Your task to perform on an android device: What's on my calendar today? Image 0: 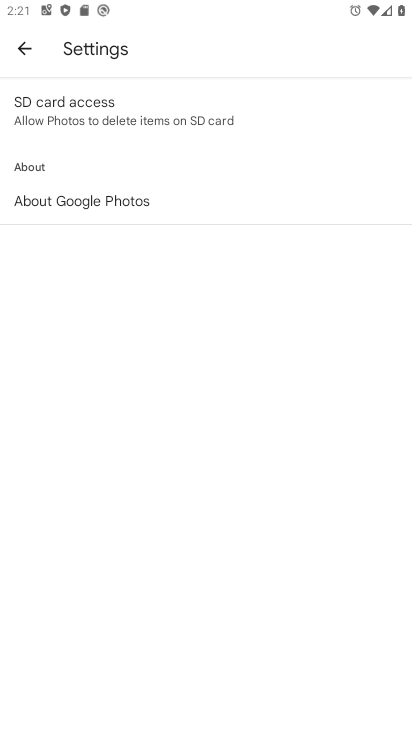
Step 0: press home button
Your task to perform on an android device: What's on my calendar today? Image 1: 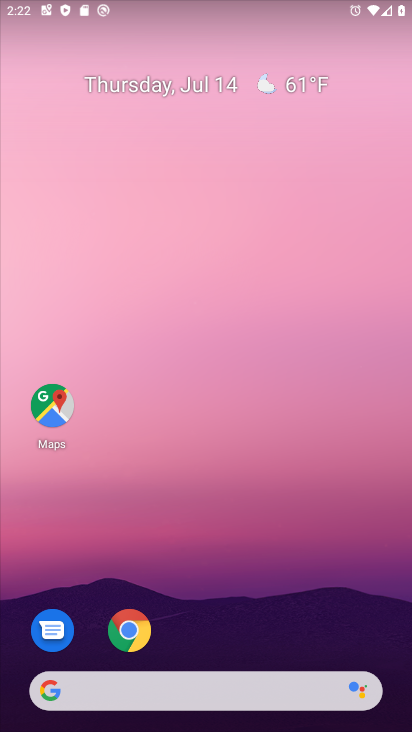
Step 1: drag from (142, 681) to (208, 261)
Your task to perform on an android device: What's on my calendar today? Image 2: 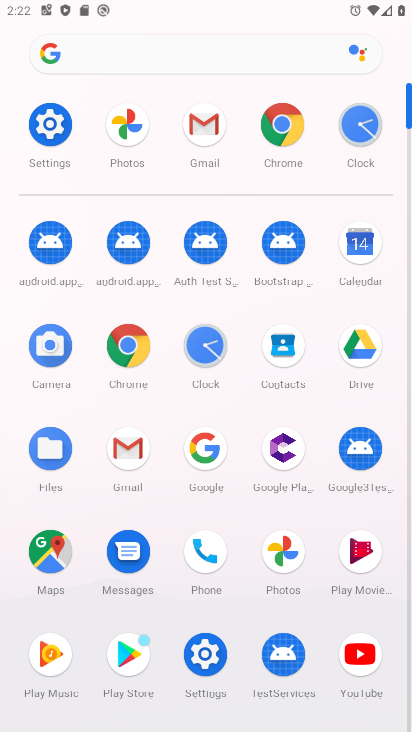
Step 2: click (353, 250)
Your task to perform on an android device: What's on my calendar today? Image 3: 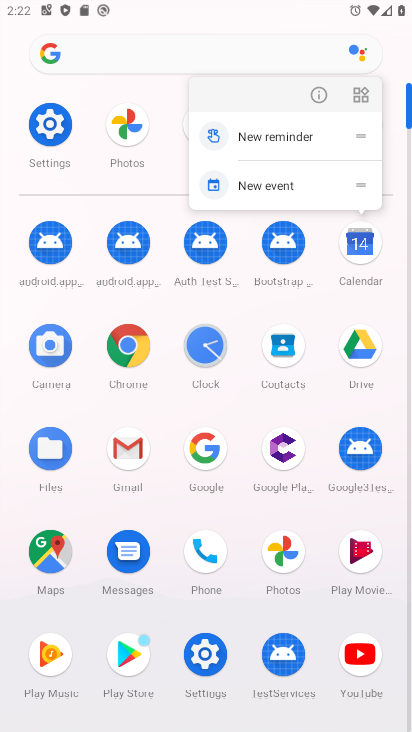
Step 3: click (362, 250)
Your task to perform on an android device: What's on my calendar today? Image 4: 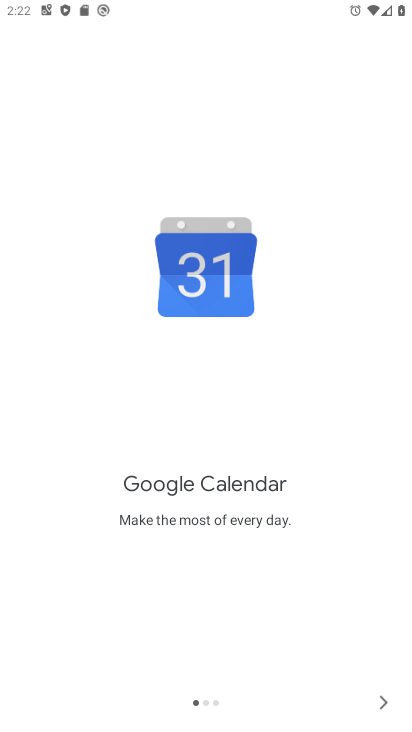
Step 4: click (386, 710)
Your task to perform on an android device: What's on my calendar today? Image 5: 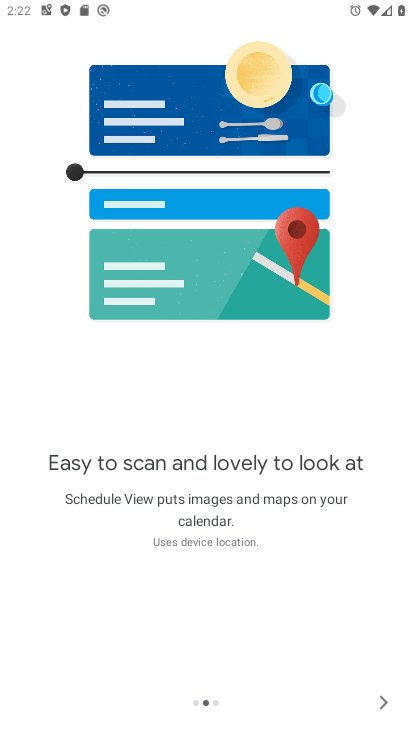
Step 5: click (386, 701)
Your task to perform on an android device: What's on my calendar today? Image 6: 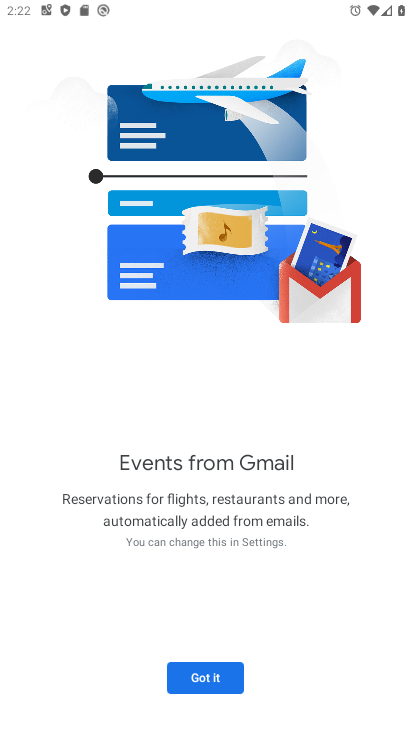
Step 6: click (214, 667)
Your task to perform on an android device: What's on my calendar today? Image 7: 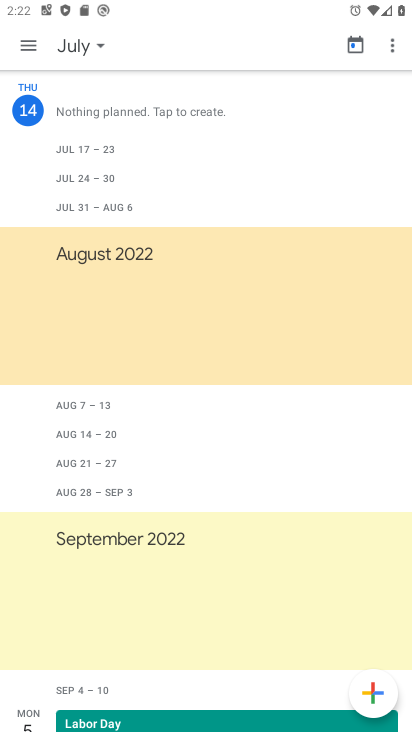
Step 7: click (30, 48)
Your task to perform on an android device: What's on my calendar today? Image 8: 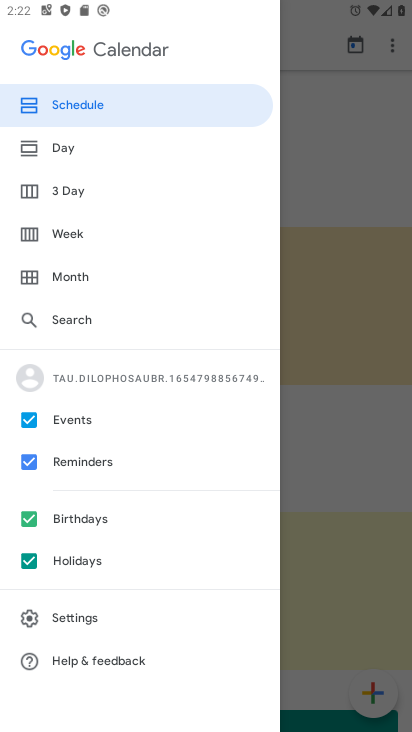
Step 8: click (61, 151)
Your task to perform on an android device: What's on my calendar today? Image 9: 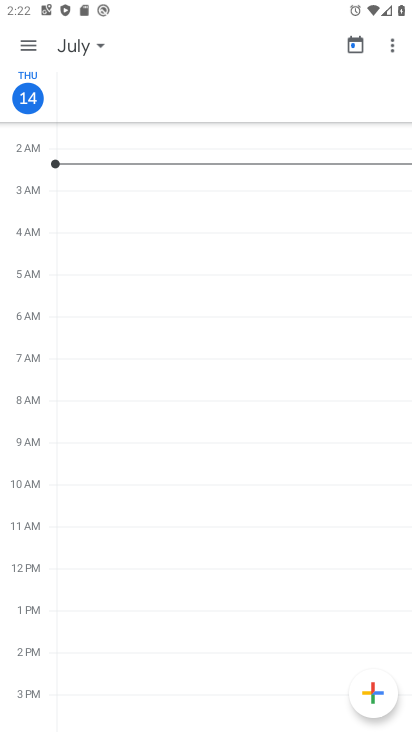
Step 9: click (30, 44)
Your task to perform on an android device: What's on my calendar today? Image 10: 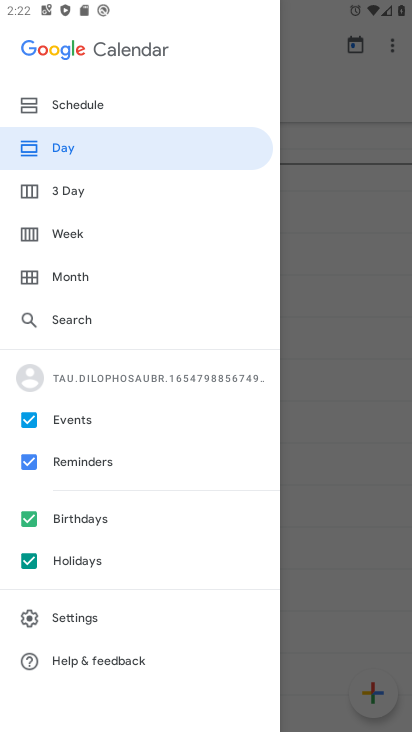
Step 10: click (79, 96)
Your task to perform on an android device: What's on my calendar today? Image 11: 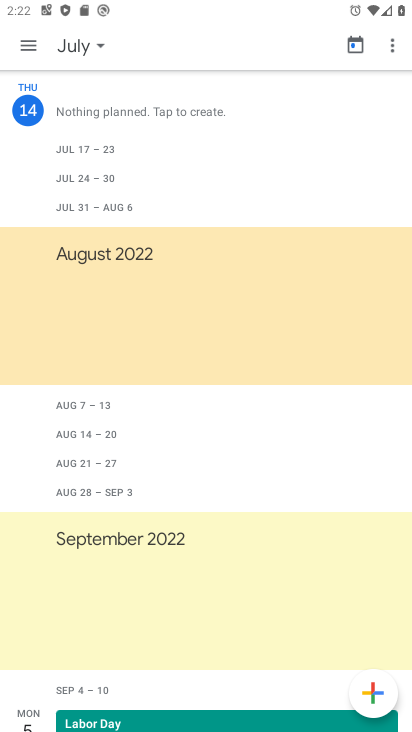
Step 11: task complete